Your task to perform on an android device: manage bookmarks in the chrome app Image 0: 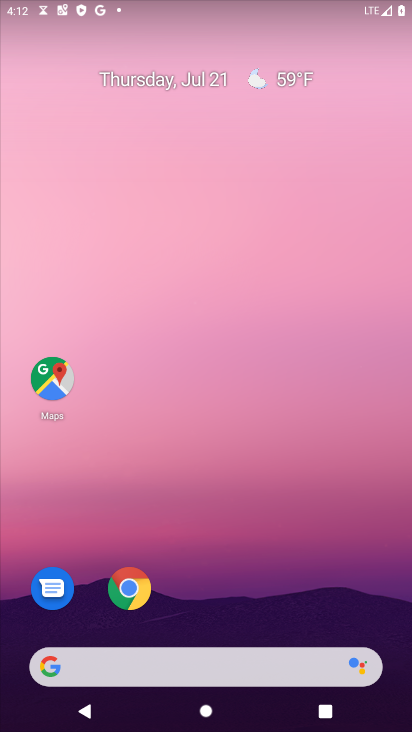
Step 0: click (131, 593)
Your task to perform on an android device: manage bookmarks in the chrome app Image 1: 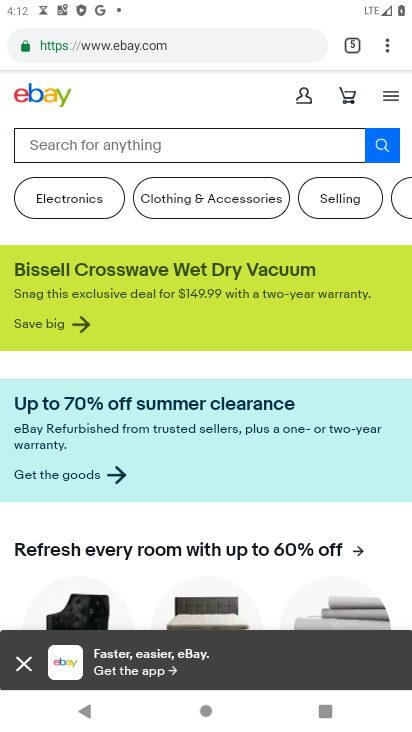
Step 1: click (388, 49)
Your task to perform on an android device: manage bookmarks in the chrome app Image 2: 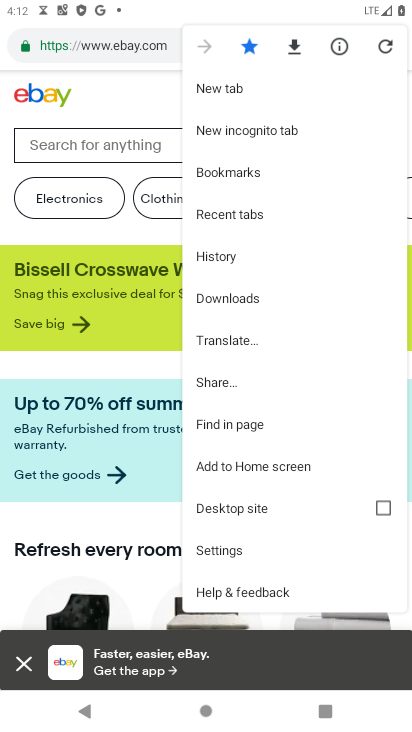
Step 2: click (230, 173)
Your task to perform on an android device: manage bookmarks in the chrome app Image 3: 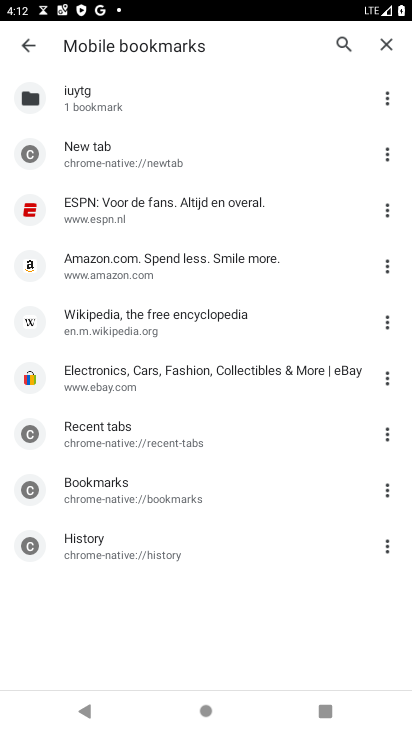
Step 3: click (383, 206)
Your task to perform on an android device: manage bookmarks in the chrome app Image 4: 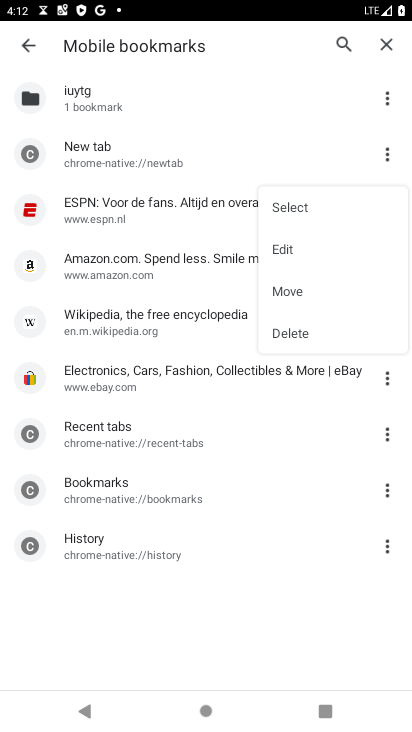
Step 4: click (285, 250)
Your task to perform on an android device: manage bookmarks in the chrome app Image 5: 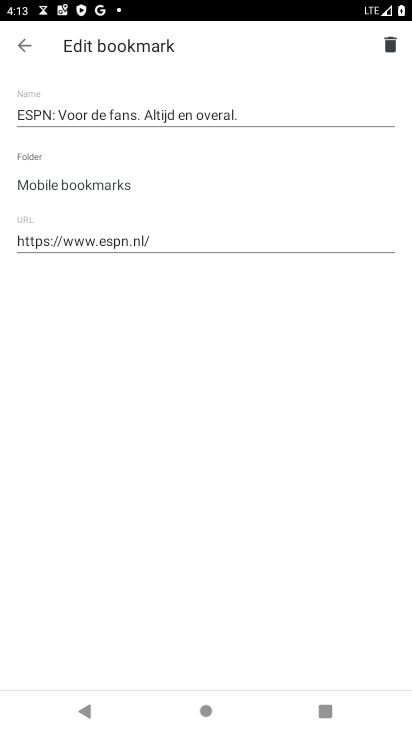
Step 5: click (135, 120)
Your task to perform on an android device: manage bookmarks in the chrome app Image 6: 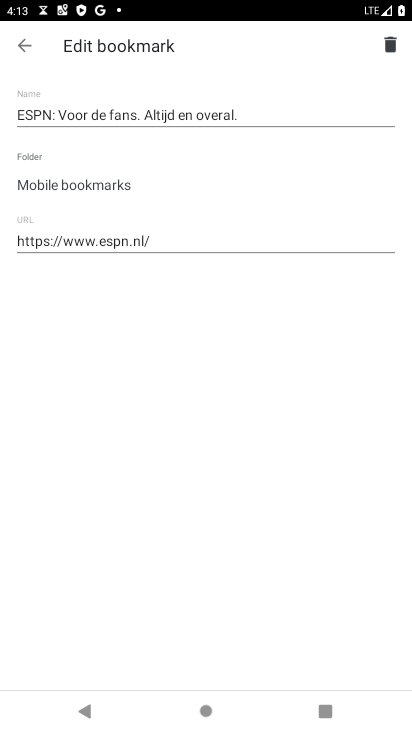
Step 6: click (135, 120)
Your task to perform on an android device: manage bookmarks in the chrome app Image 7: 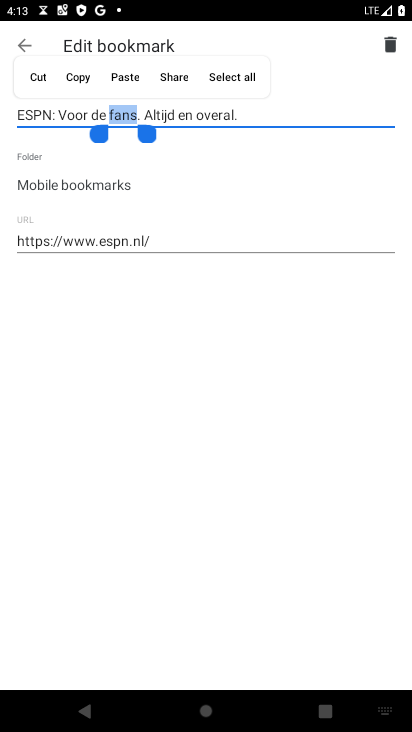
Step 7: click (40, 74)
Your task to perform on an android device: manage bookmarks in the chrome app Image 8: 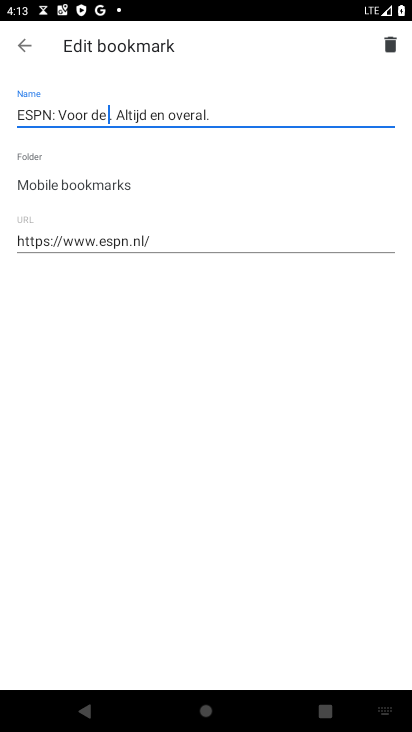
Step 8: click (21, 40)
Your task to perform on an android device: manage bookmarks in the chrome app Image 9: 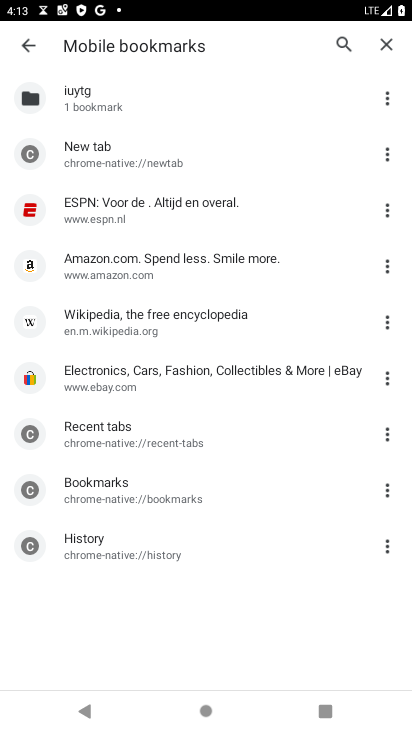
Step 9: task complete